Your task to perform on an android device: Go to sound settings Image 0: 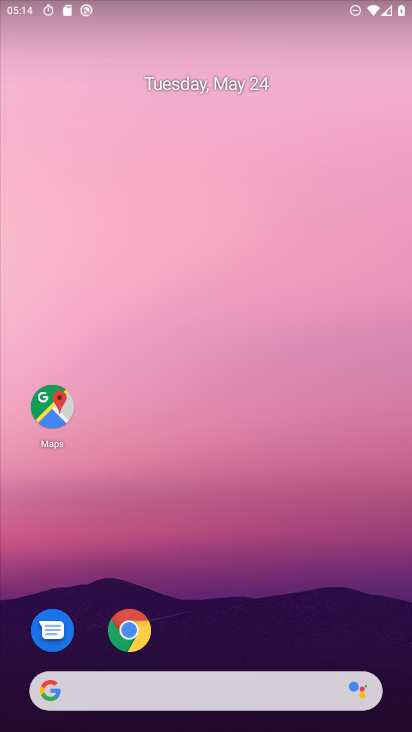
Step 0: click (184, 129)
Your task to perform on an android device: Go to sound settings Image 1: 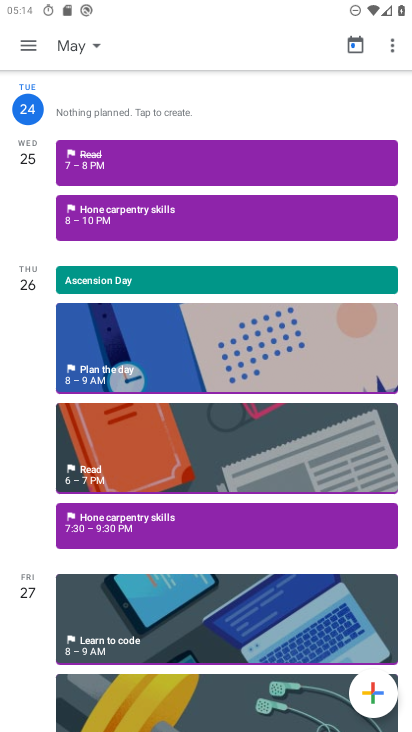
Step 1: press home button
Your task to perform on an android device: Go to sound settings Image 2: 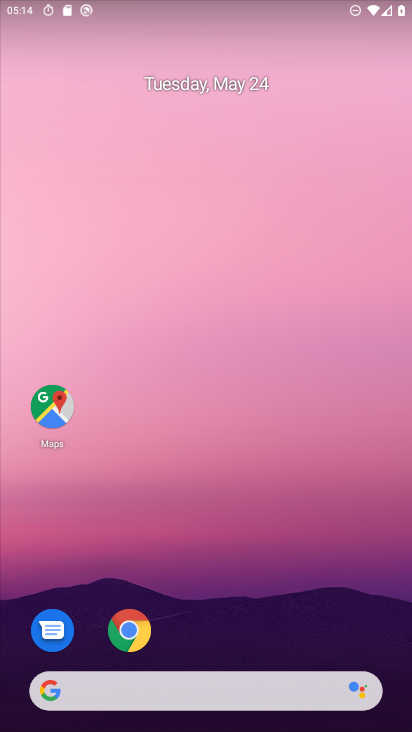
Step 2: drag from (203, 625) to (231, 139)
Your task to perform on an android device: Go to sound settings Image 3: 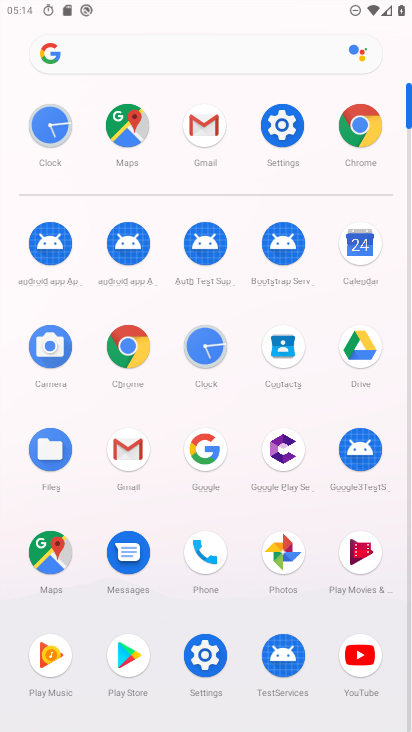
Step 3: click (271, 130)
Your task to perform on an android device: Go to sound settings Image 4: 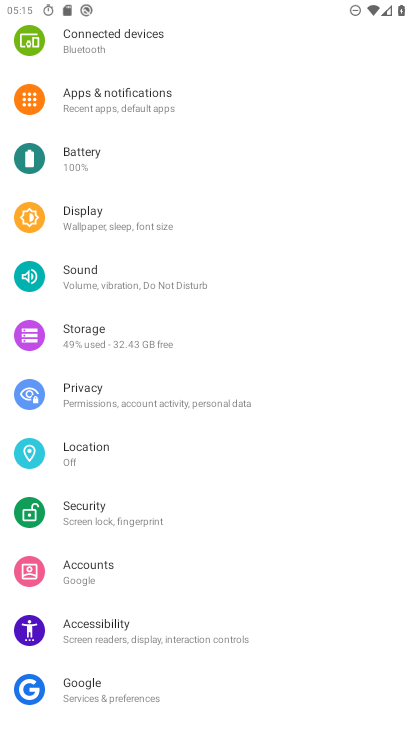
Step 4: click (143, 293)
Your task to perform on an android device: Go to sound settings Image 5: 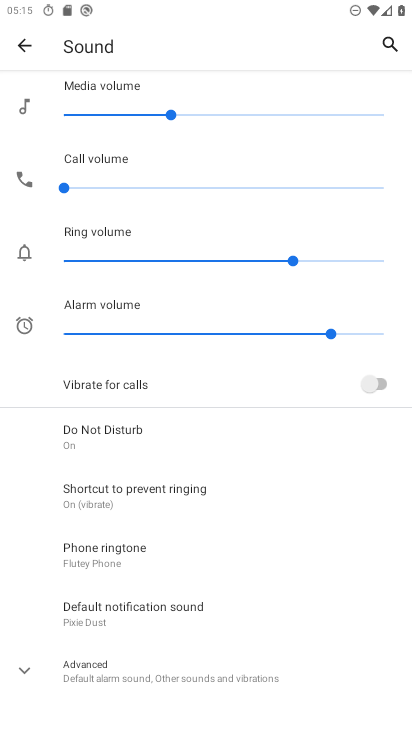
Step 5: task complete